Your task to perform on an android device: Open battery settings Image 0: 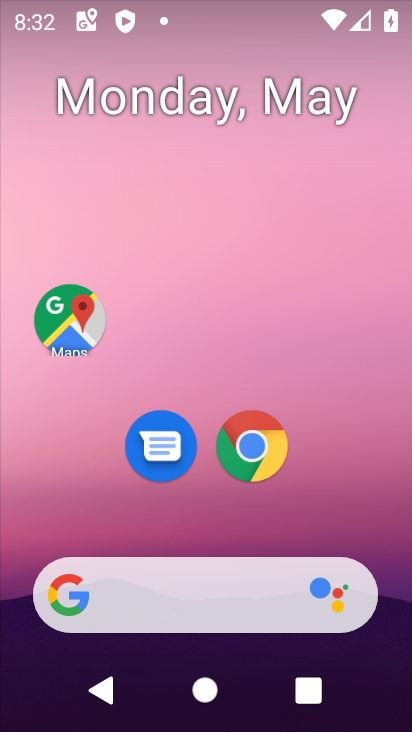
Step 0: press home button
Your task to perform on an android device: Open battery settings Image 1: 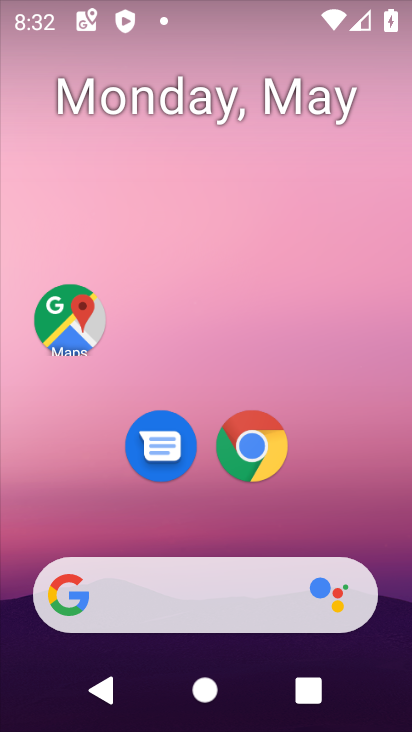
Step 1: drag from (206, 533) to (203, 71)
Your task to perform on an android device: Open battery settings Image 2: 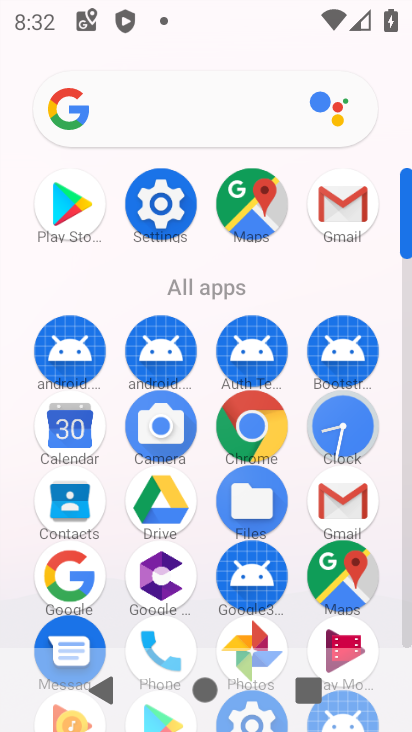
Step 2: click (156, 198)
Your task to perform on an android device: Open battery settings Image 3: 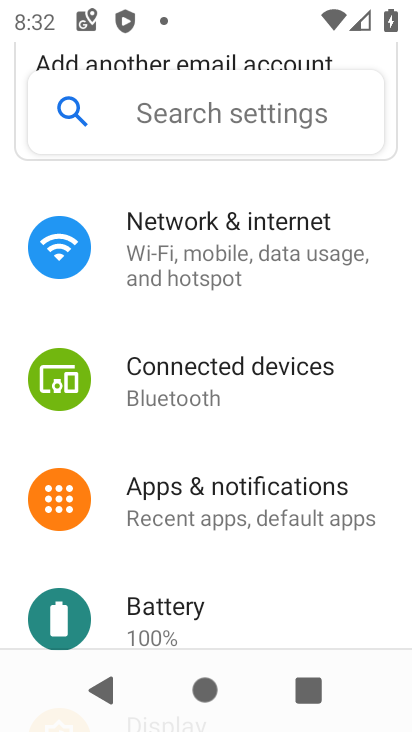
Step 3: click (221, 610)
Your task to perform on an android device: Open battery settings Image 4: 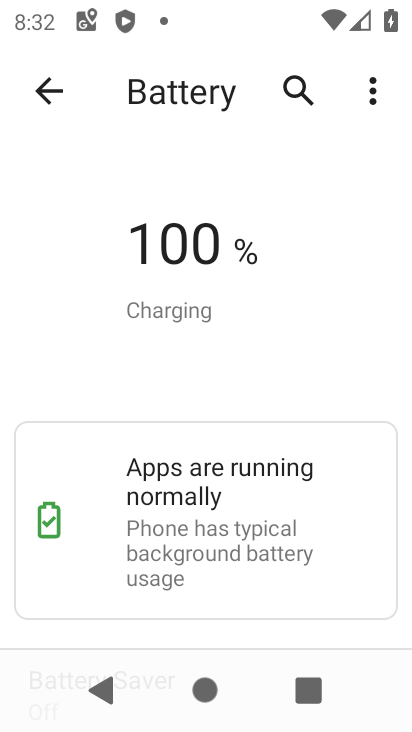
Step 4: task complete